Your task to perform on an android device: add a contact Image 0: 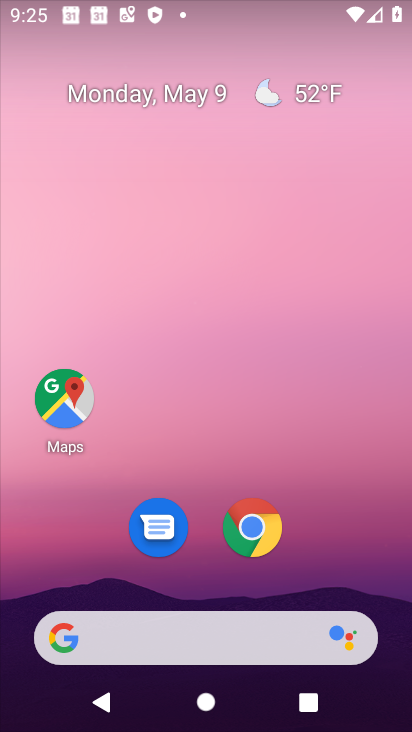
Step 0: drag from (207, 581) to (225, 87)
Your task to perform on an android device: add a contact Image 1: 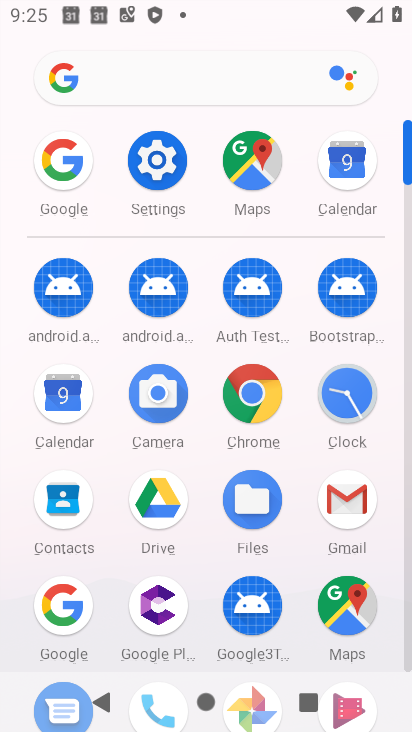
Step 1: click (56, 500)
Your task to perform on an android device: add a contact Image 2: 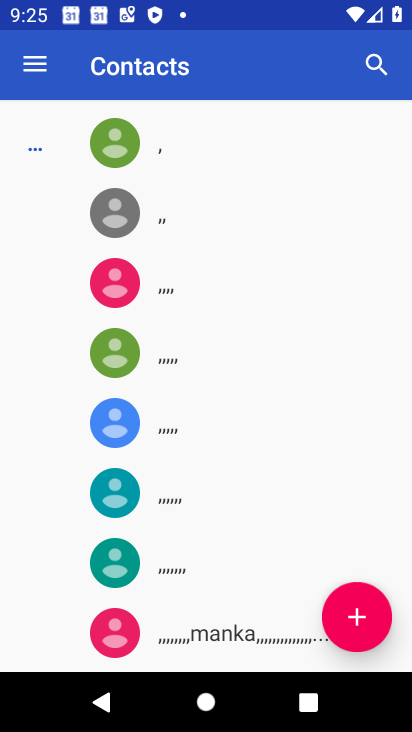
Step 2: click (340, 613)
Your task to perform on an android device: add a contact Image 3: 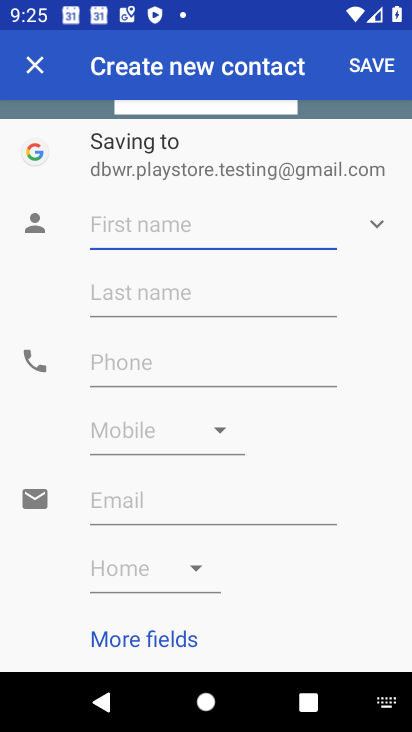
Step 3: type "jhsj"
Your task to perform on an android device: add a contact Image 4: 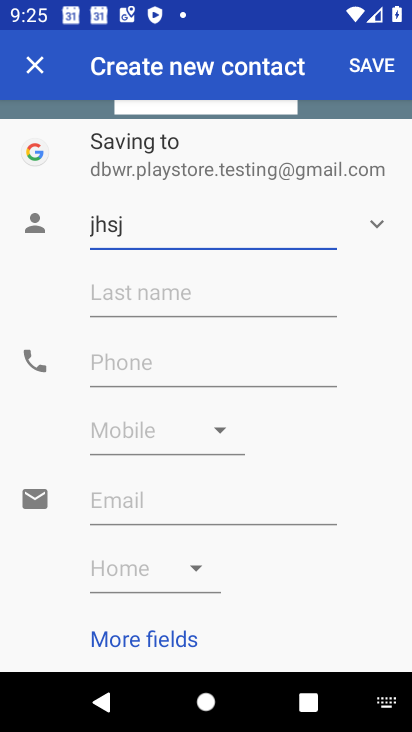
Step 4: click (377, 61)
Your task to perform on an android device: add a contact Image 5: 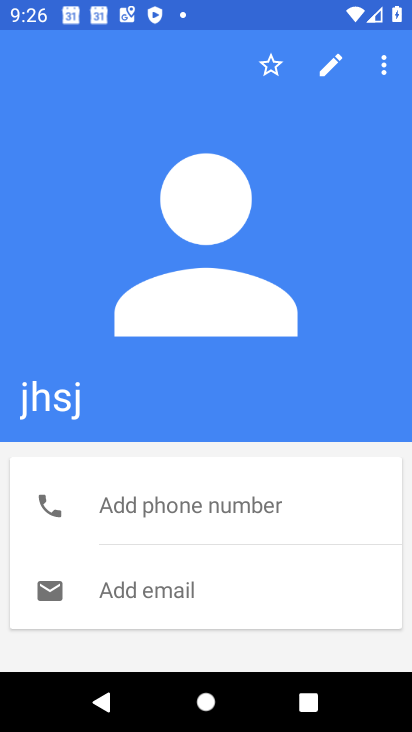
Step 5: task complete